Your task to perform on an android device: What's on my calendar today? Image 0: 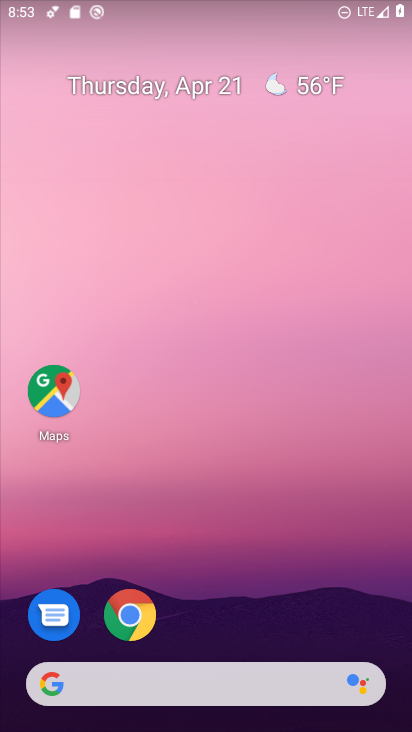
Step 0: drag from (319, 334) to (330, 91)
Your task to perform on an android device: What's on my calendar today? Image 1: 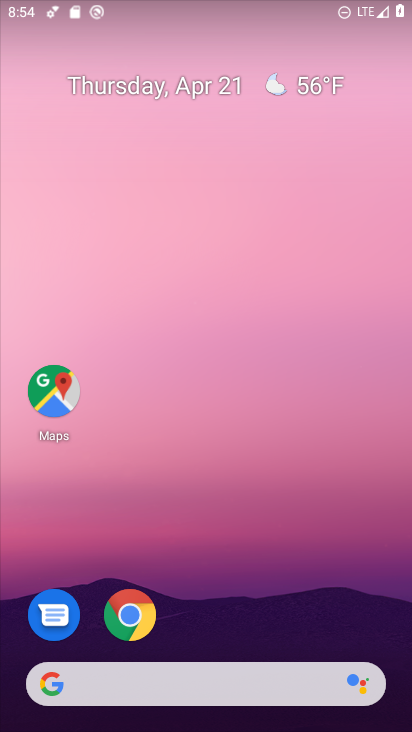
Step 1: drag from (295, 580) to (376, 65)
Your task to perform on an android device: What's on my calendar today? Image 2: 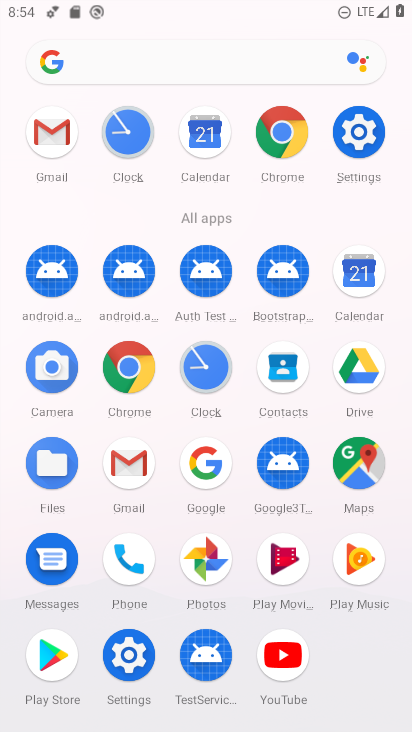
Step 2: click (336, 268)
Your task to perform on an android device: What's on my calendar today? Image 3: 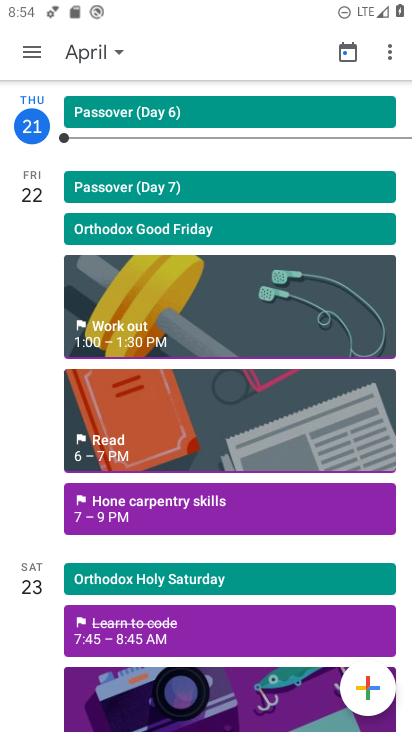
Step 3: click (104, 51)
Your task to perform on an android device: What's on my calendar today? Image 4: 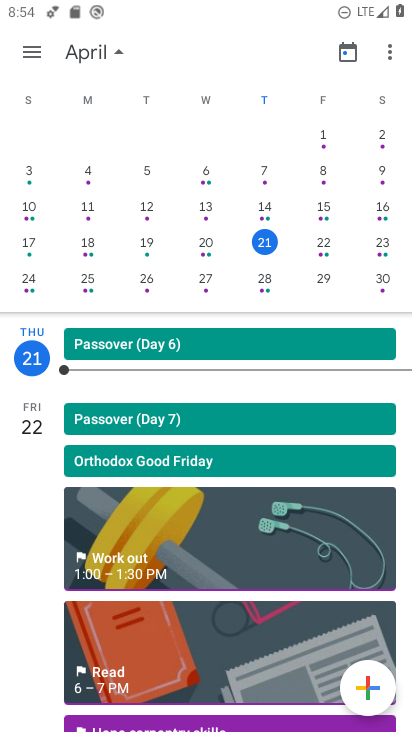
Step 4: click (256, 250)
Your task to perform on an android device: What's on my calendar today? Image 5: 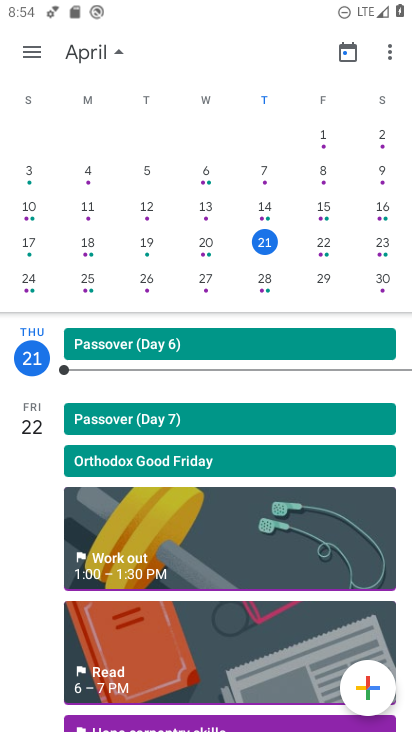
Step 5: task complete